Your task to perform on an android device: find snoozed emails in the gmail app Image 0: 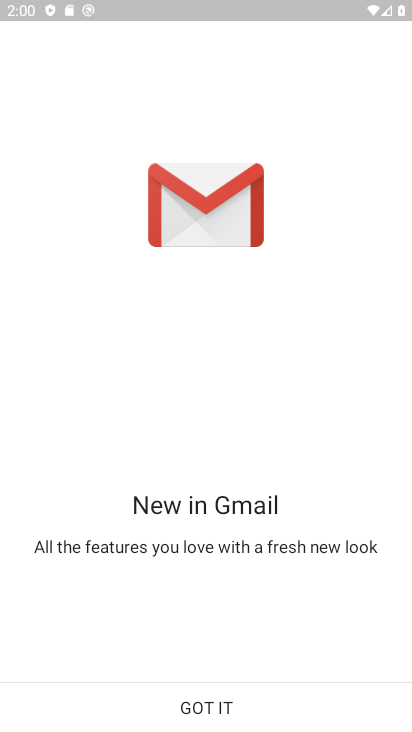
Step 0: click (214, 692)
Your task to perform on an android device: find snoozed emails in the gmail app Image 1: 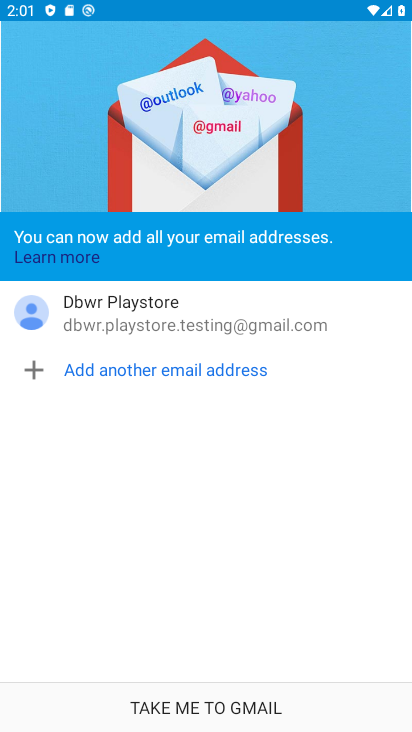
Step 1: click (220, 704)
Your task to perform on an android device: find snoozed emails in the gmail app Image 2: 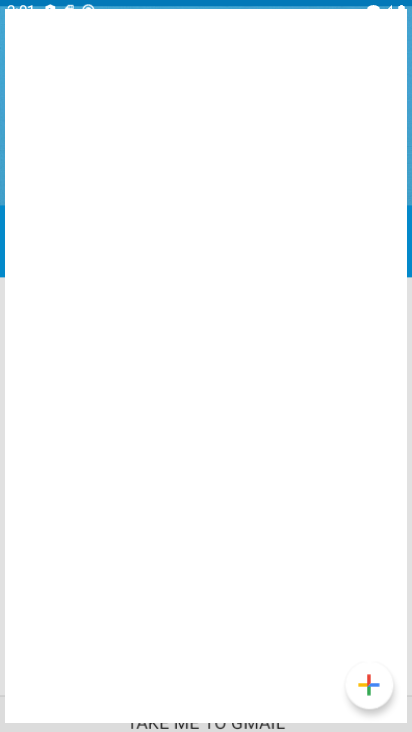
Step 2: click (220, 703)
Your task to perform on an android device: find snoozed emails in the gmail app Image 3: 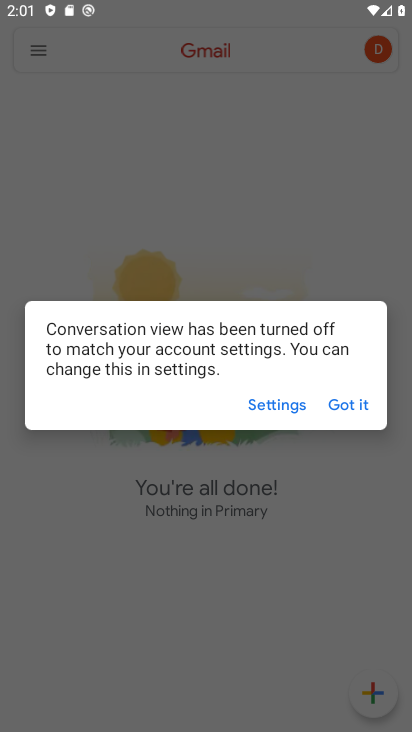
Step 3: click (372, 398)
Your task to perform on an android device: find snoozed emails in the gmail app Image 4: 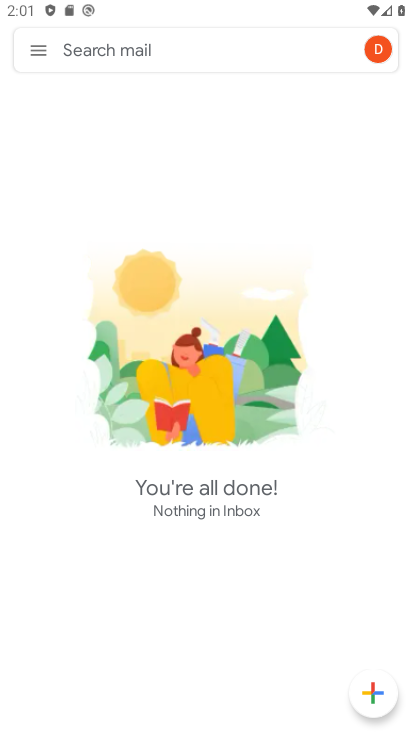
Step 4: click (33, 43)
Your task to perform on an android device: find snoozed emails in the gmail app Image 5: 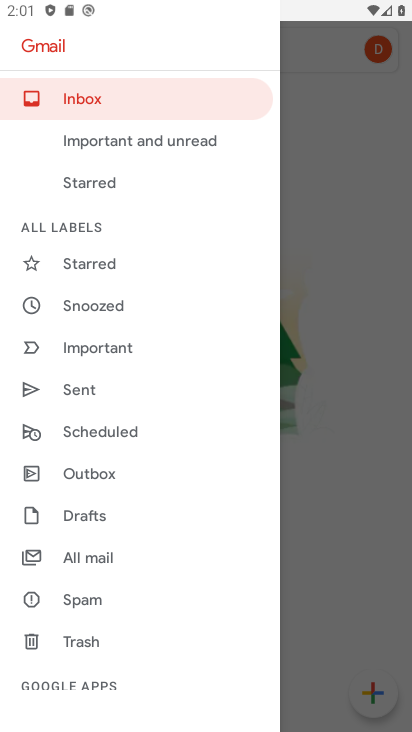
Step 5: click (102, 314)
Your task to perform on an android device: find snoozed emails in the gmail app Image 6: 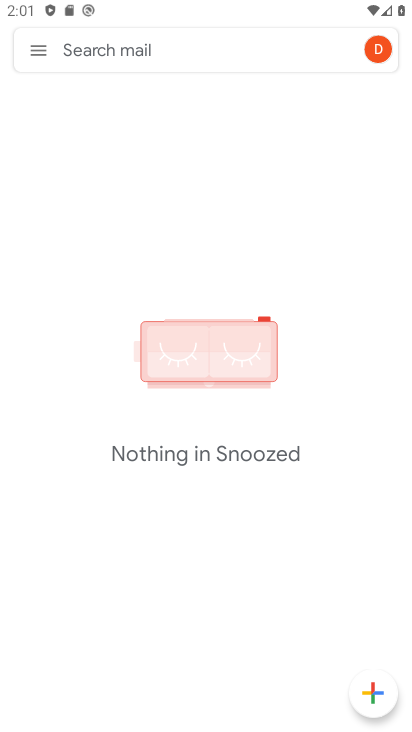
Step 6: task complete